Your task to perform on an android device: turn off javascript in the chrome app Image 0: 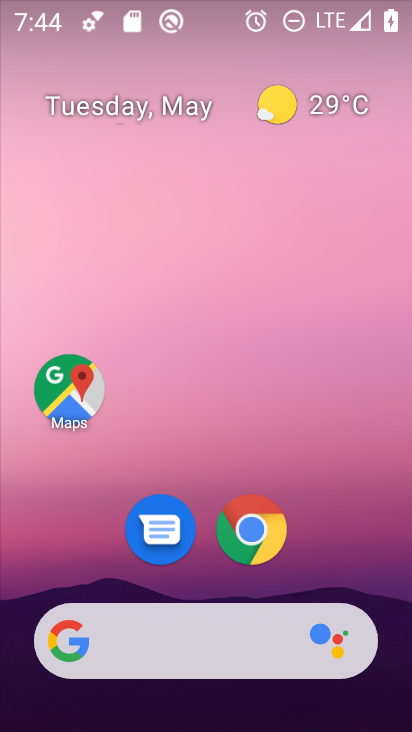
Step 0: drag from (387, 640) to (339, 75)
Your task to perform on an android device: turn off javascript in the chrome app Image 1: 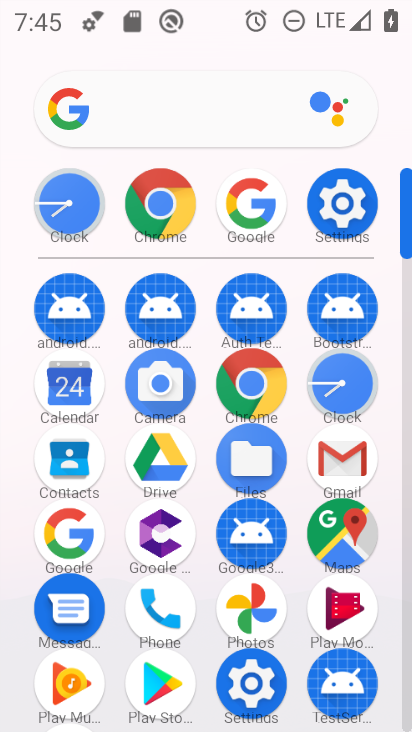
Step 1: click (253, 382)
Your task to perform on an android device: turn off javascript in the chrome app Image 2: 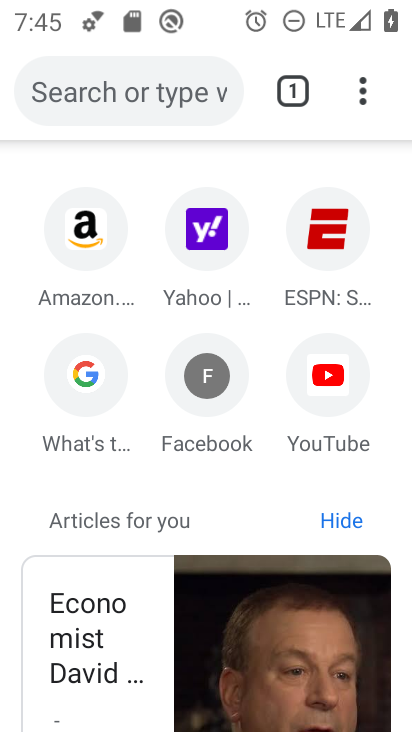
Step 2: click (362, 97)
Your task to perform on an android device: turn off javascript in the chrome app Image 3: 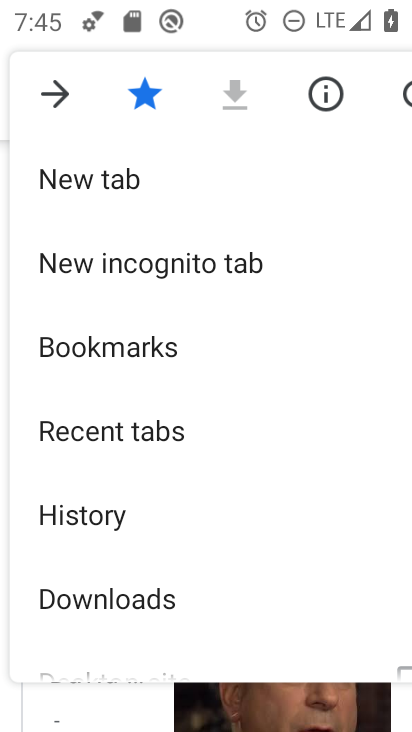
Step 3: drag from (153, 589) to (189, 144)
Your task to perform on an android device: turn off javascript in the chrome app Image 4: 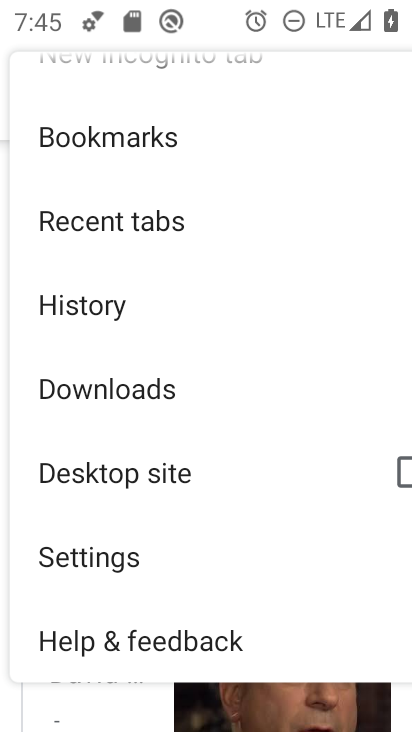
Step 4: click (95, 546)
Your task to perform on an android device: turn off javascript in the chrome app Image 5: 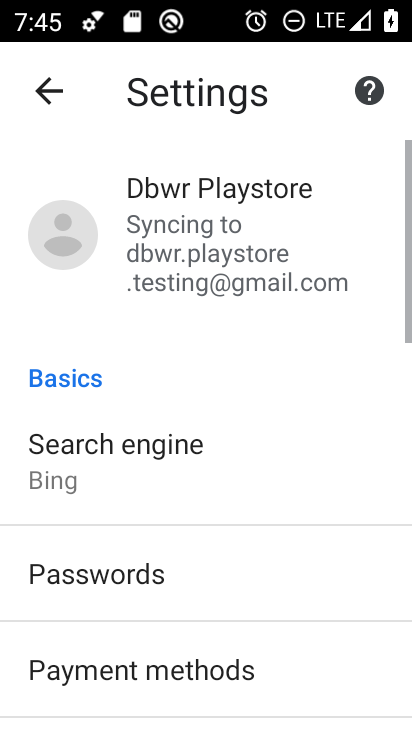
Step 5: drag from (146, 641) to (138, 93)
Your task to perform on an android device: turn off javascript in the chrome app Image 6: 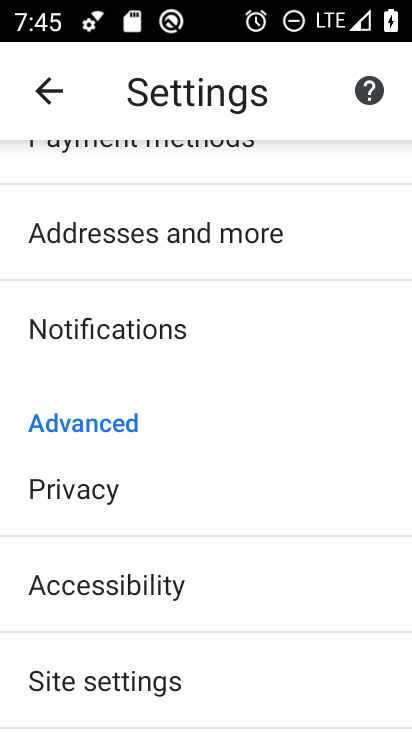
Step 6: click (115, 693)
Your task to perform on an android device: turn off javascript in the chrome app Image 7: 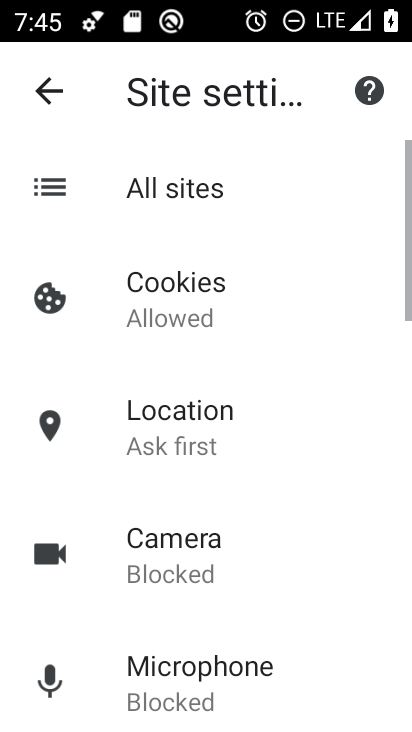
Step 7: drag from (115, 689) to (157, 165)
Your task to perform on an android device: turn off javascript in the chrome app Image 8: 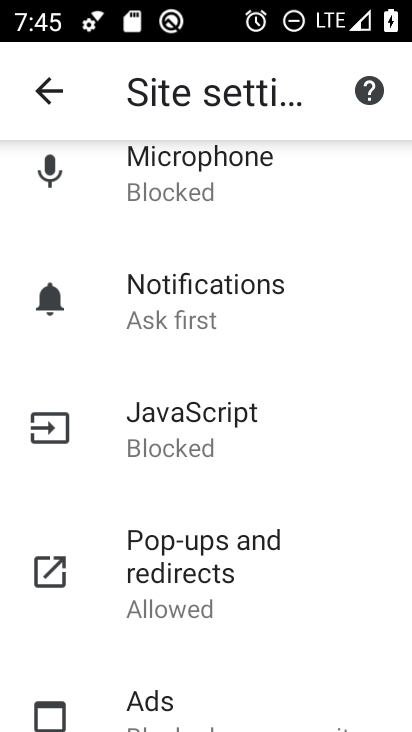
Step 8: click (247, 440)
Your task to perform on an android device: turn off javascript in the chrome app Image 9: 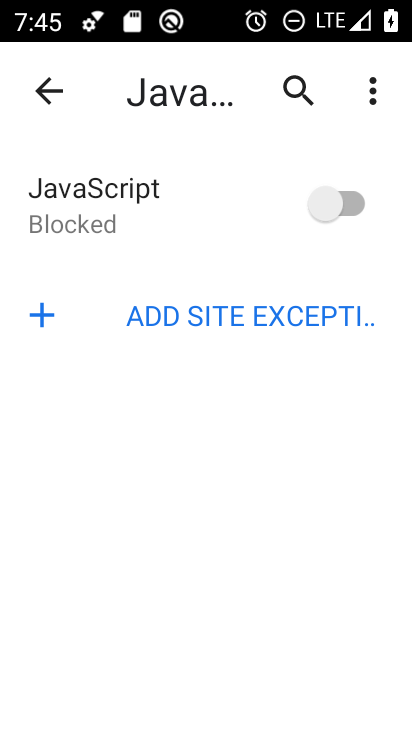
Step 9: task complete